Your task to perform on an android device: turn off priority inbox in the gmail app Image 0: 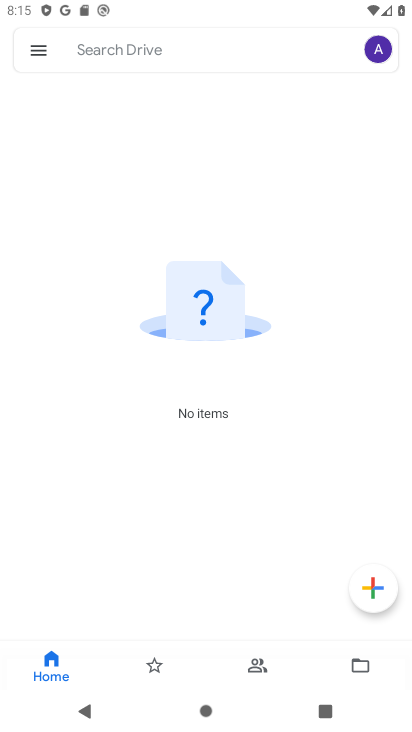
Step 0: press home button
Your task to perform on an android device: turn off priority inbox in the gmail app Image 1: 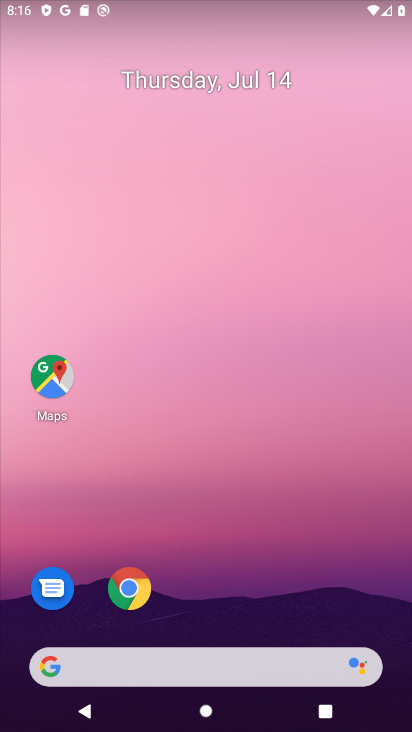
Step 1: drag from (243, 614) to (165, 152)
Your task to perform on an android device: turn off priority inbox in the gmail app Image 2: 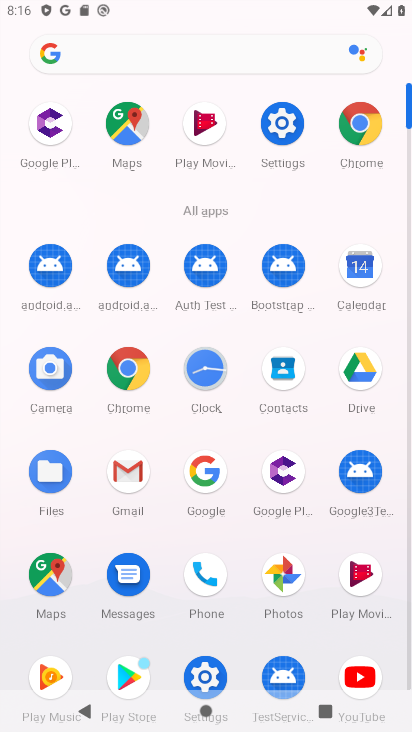
Step 2: click (132, 484)
Your task to perform on an android device: turn off priority inbox in the gmail app Image 3: 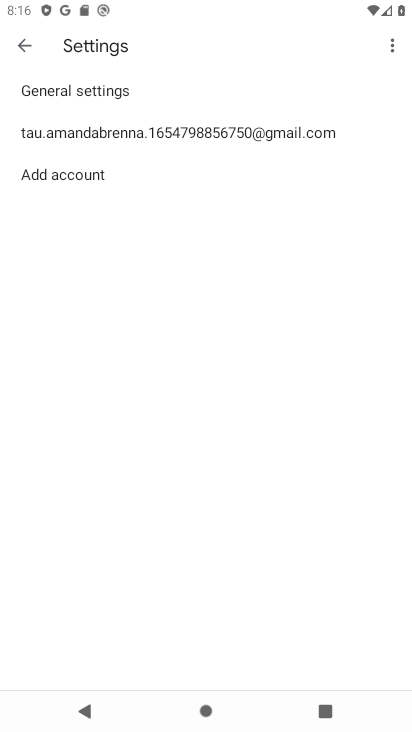
Step 3: click (284, 145)
Your task to perform on an android device: turn off priority inbox in the gmail app Image 4: 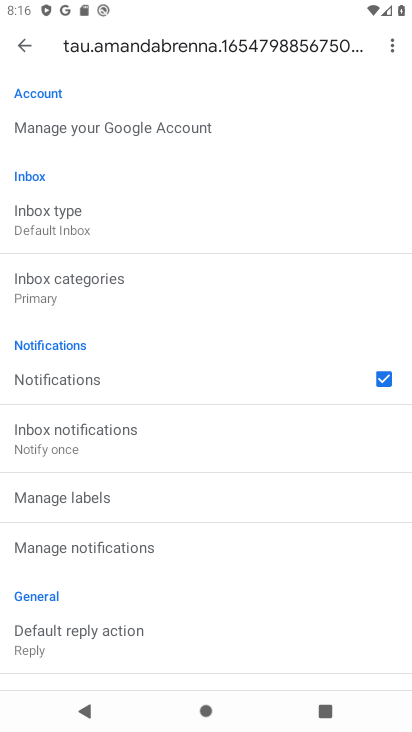
Step 4: click (229, 228)
Your task to perform on an android device: turn off priority inbox in the gmail app Image 5: 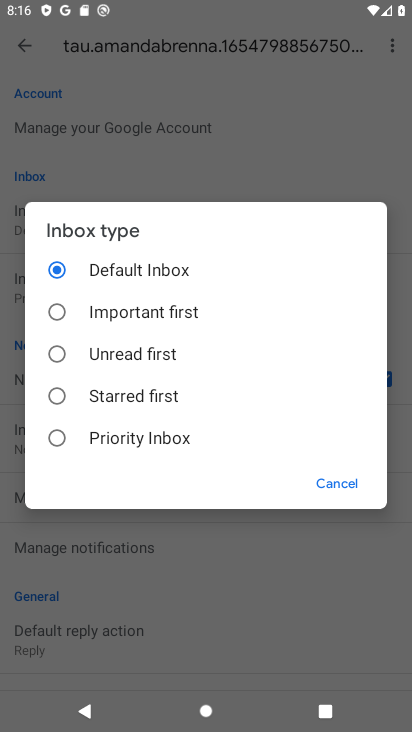
Step 5: task complete